Your task to perform on an android device: turn on wifi Image 0: 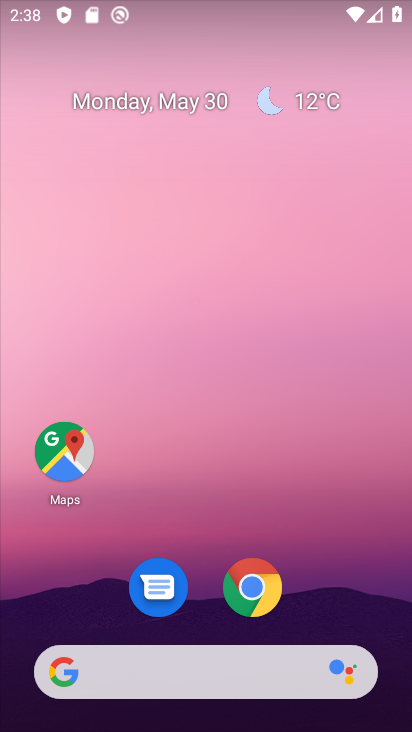
Step 0: drag from (194, 507) to (194, 159)
Your task to perform on an android device: turn on wifi Image 1: 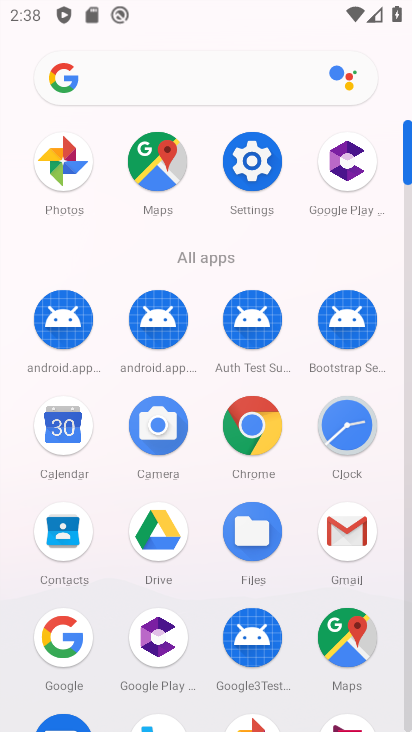
Step 1: click (257, 161)
Your task to perform on an android device: turn on wifi Image 2: 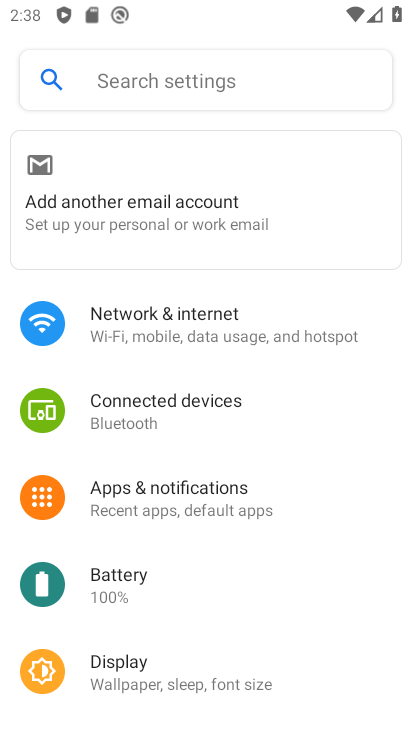
Step 2: click (134, 326)
Your task to perform on an android device: turn on wifi Image 3: 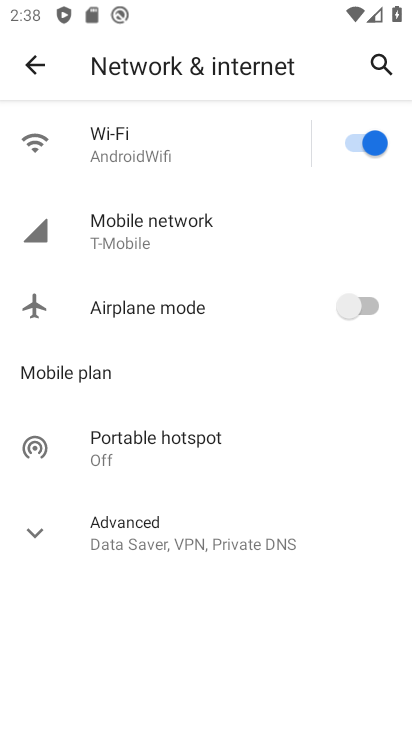
Step 3: task complete